Your task to perform on an android device: Open Google Chrome Image 0: 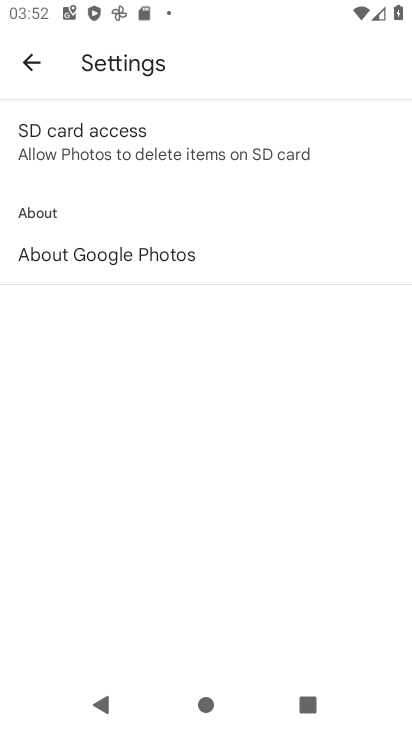
Step 0: press home button
Your task to perform on an android device: Open Google Chrome Image 1: 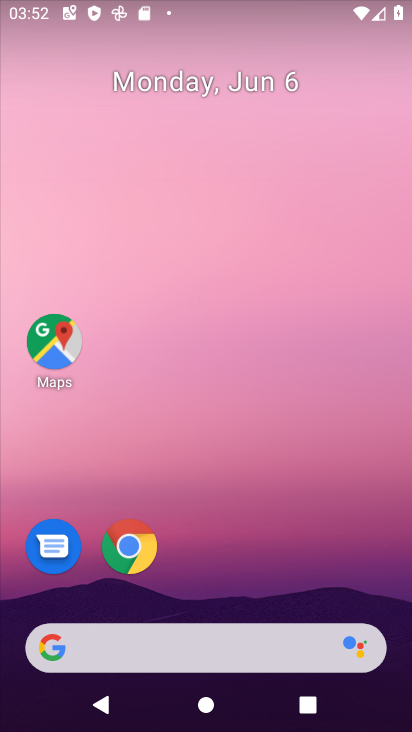
Step 1: click (148, 559)
Your task to perform on an android device: Open Google Chrome Image 2: 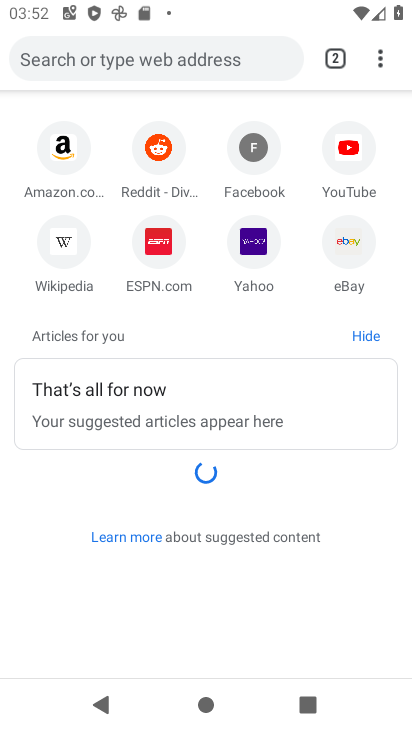
Step 2: task complete